Your task to perform on an android device: star an email in the gmail app Image 0: 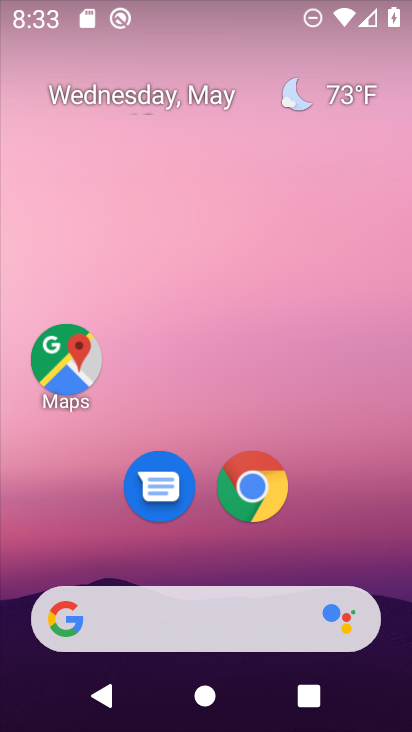
Step 0: drag from (378, 556) to (296, 113)
Your task to perform on an android device: star an email in the gmail app Image 1: 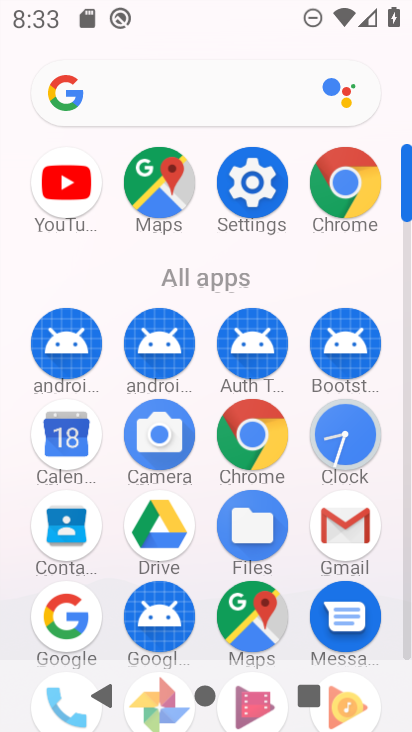
Step 1: click (409, 644)
Your task to perform on an android device: star an email in the gmail app Image 2: 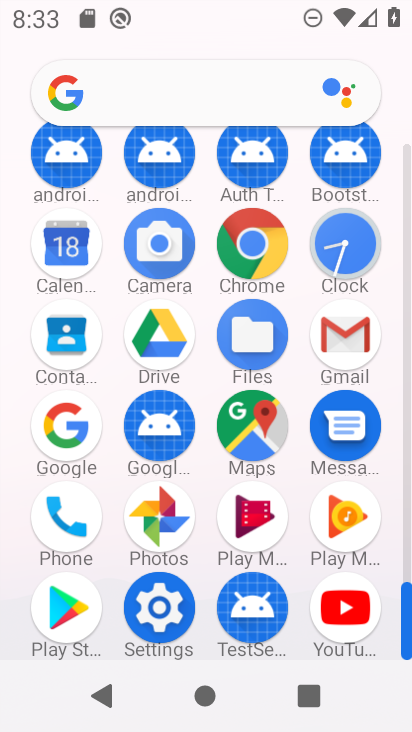
Step 2: click (345, 335)
Your task to perform on an android device: star an email in the gmail app Image 3: 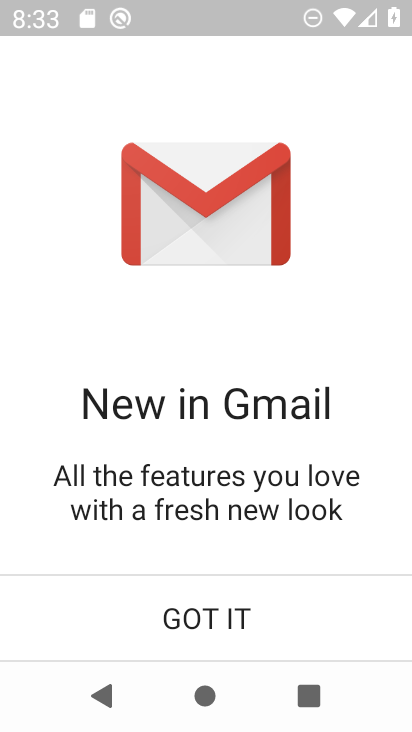
Step 3: click (194, 621)
Your task to perform on an android device: star an email in the gmail app Image 4: 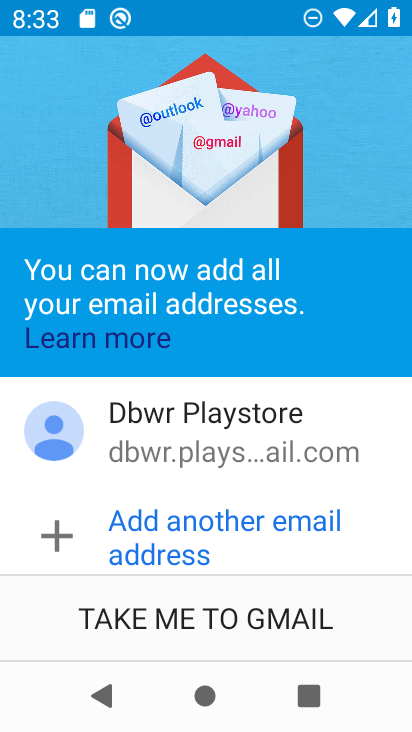
Step 4: click (194, 621)
Your task to perform on an android device: star an email in the gmail app Image 5: 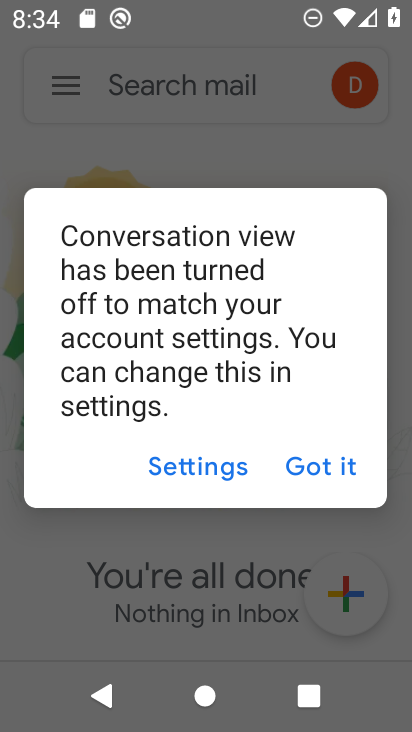
Step 5: click (308, 457)
Your task to perform on an android device: star an email in the gmail app Image 6: 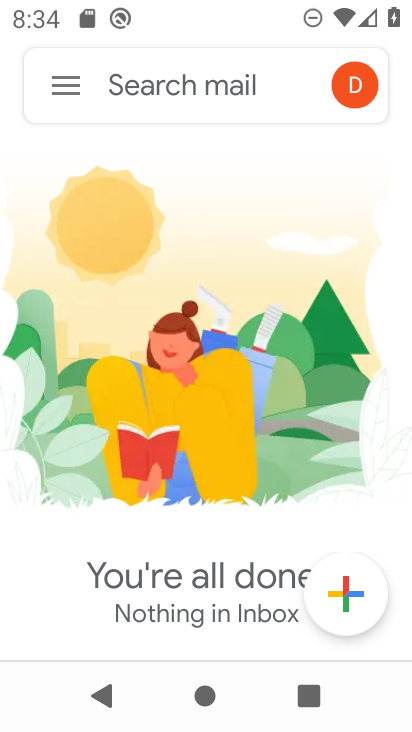
Step 6: click (62, 91)
Your task to perform on an android device: star an email in the gmail app Image 7: 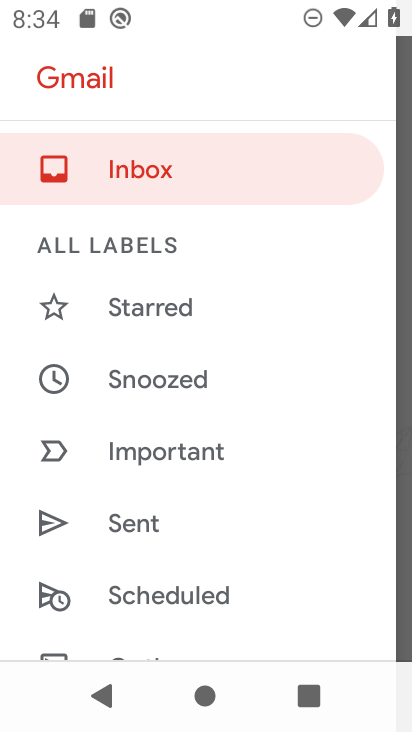
Step 7: drag from (301, 620) to (278, 182)
Your task to perform on an android device: star an email in the gmail app Image 8: 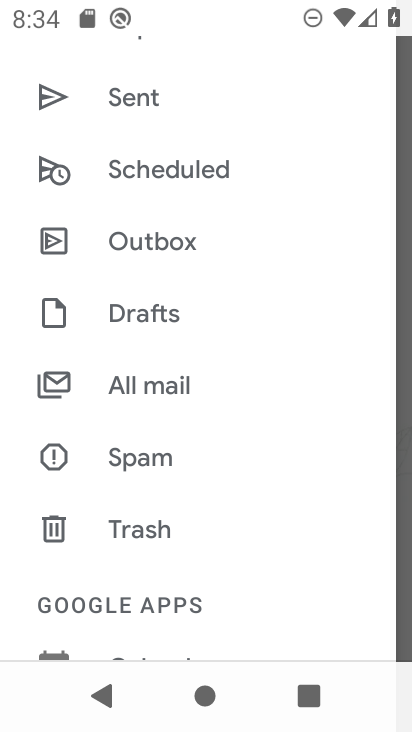
Step 8: click (143, 386)
Your task to perform on an android device: star an email in the gmail app Image 9: 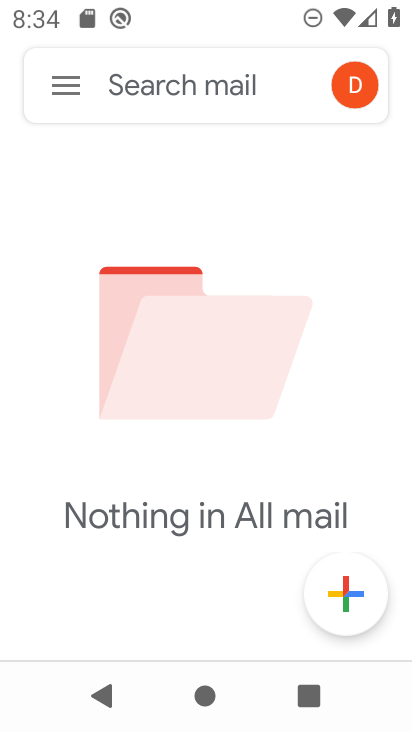
Step 9: task complete